Your task to perform on an android device: toggle notification dots Image 0: 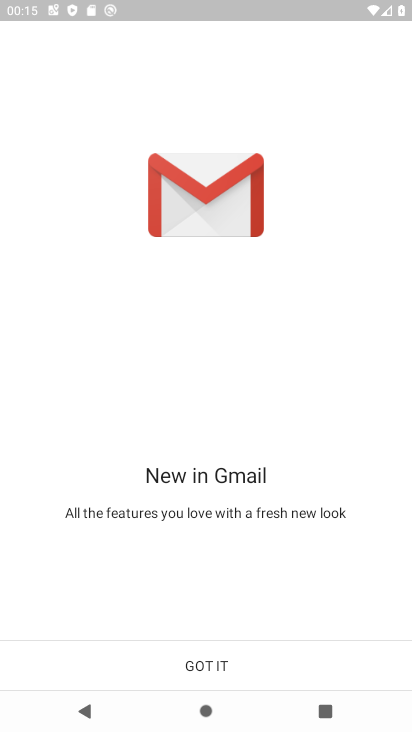
Step 0: press home button
Your task to perform on an android device: toggle notification dots Image 1: 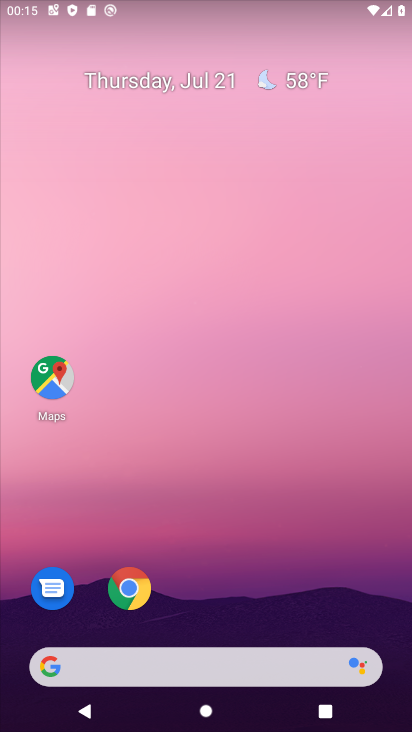
Step 1: drag from (224, 605) to (240, 225)
Your task to perform on an android device: toggle notification dots Image 2: 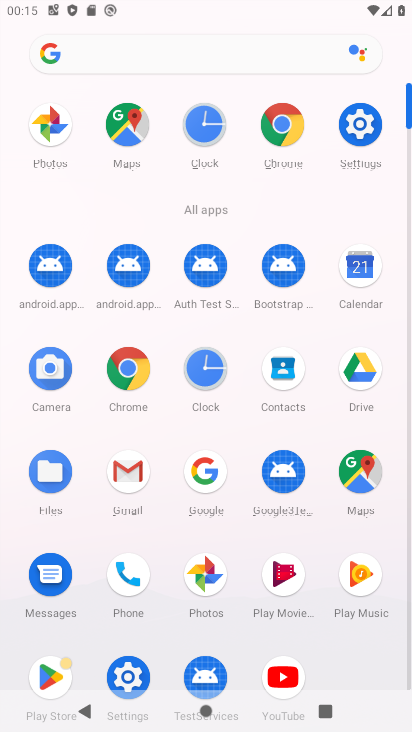
Step 2: click (122, 663)
Your task to perform on an android device: toggle notification dots Image 3: 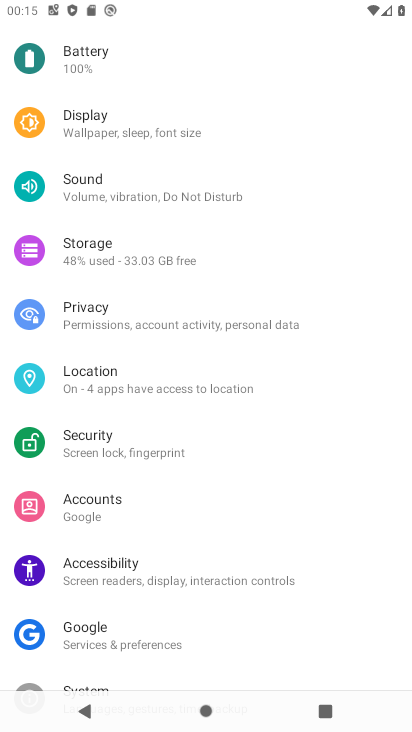
Step 3: drag from (153, 329) to (162, 665)
Your task to perform on an android device: toggle notification dots Image 4: 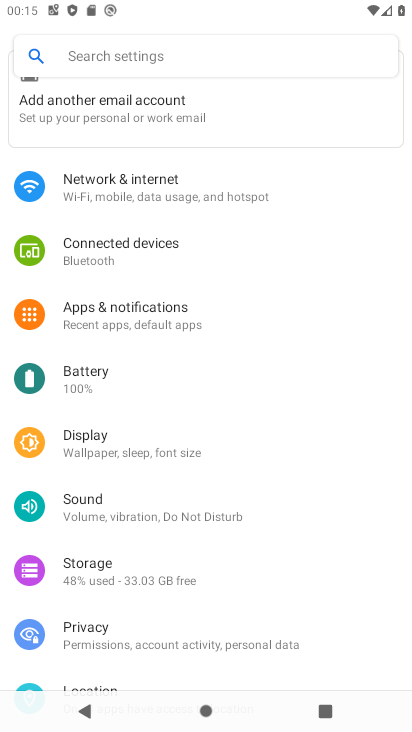
Step 4: click (158, 329)
Your task to perform on an android device: toggle notification dots Image 5: 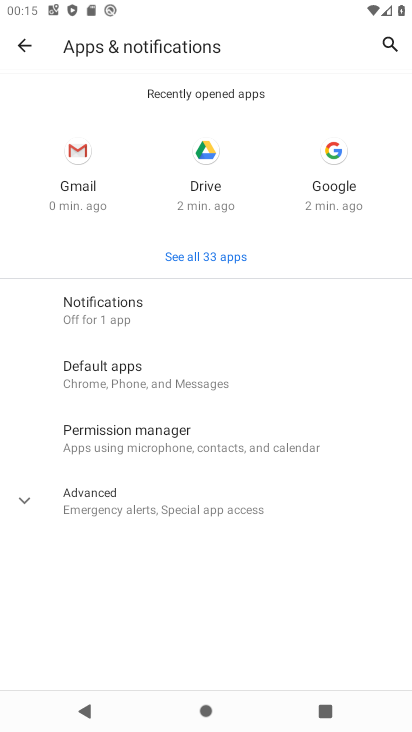
Step 5: click (133, 316)
Your task to perform on an android device: toggle notification dots Image 6: 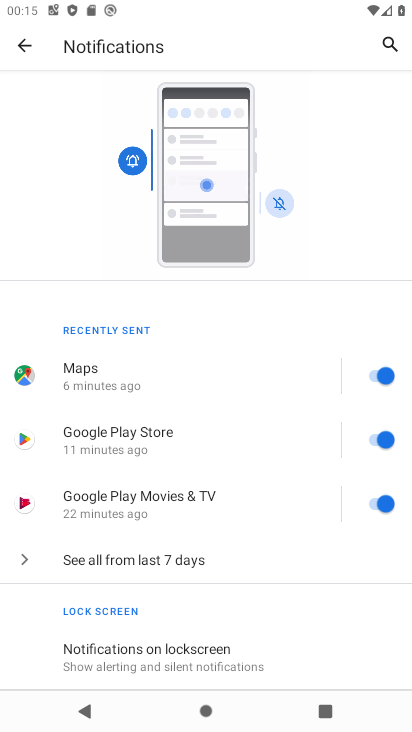
Step 6: drag from (215, 581) to (229, 328)
Your task to perform on an android device: toggle notification dots Image 7: 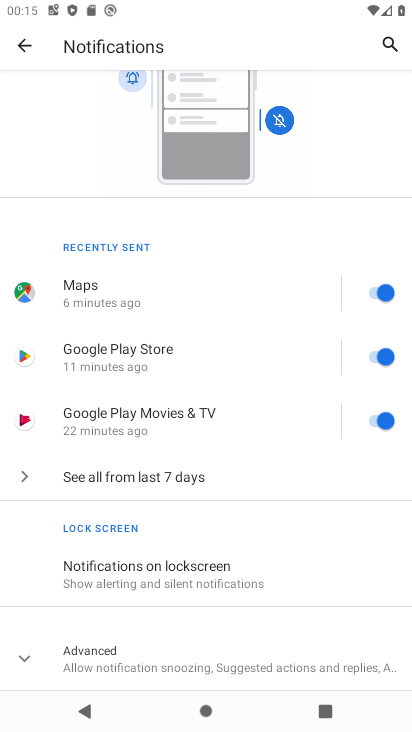
Step 7: click (80, 665)
Your task to perform on an android device: toggle notification dots Image 8: 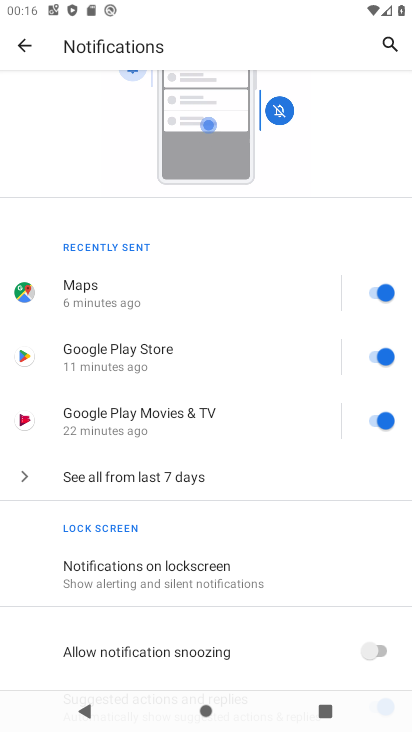
Step 8: drag from (155, 625) to (188, 387)
Your task to perform on an android device: toggle notification dots Image 9: 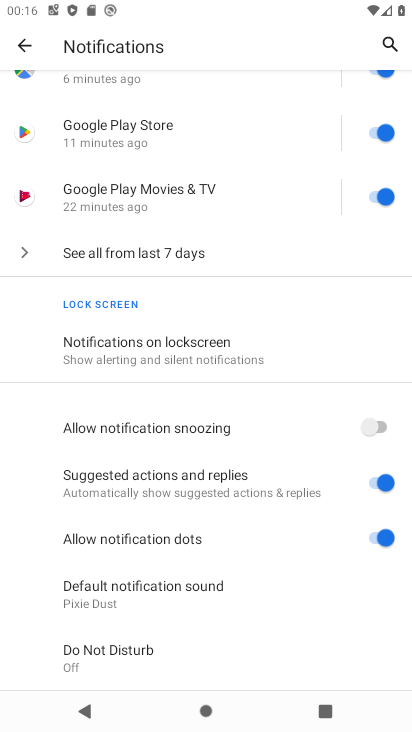
Step 9: click (364, 541)
Your task to perform on an android device: toggle notification dots Image 10: 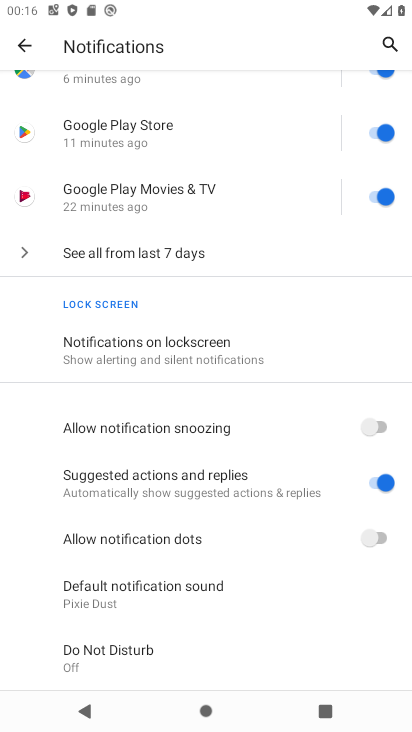
Step 10: task complete